Your task to perform on an android device: change the upload size in google photos Image 0: 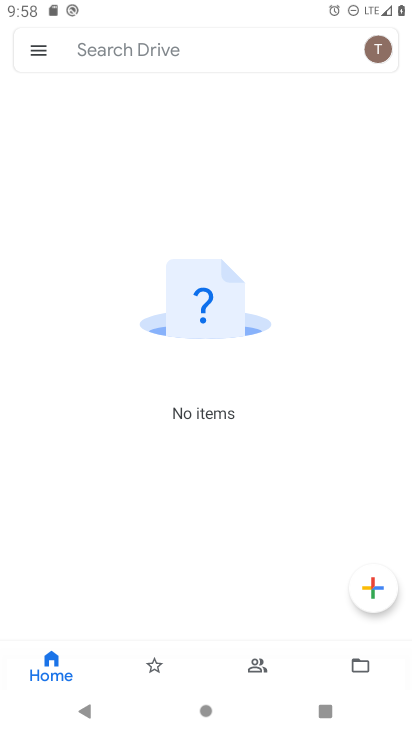
Step 0: press home button
Your task to perform on an android device: change the upload size in google photos Image 1: 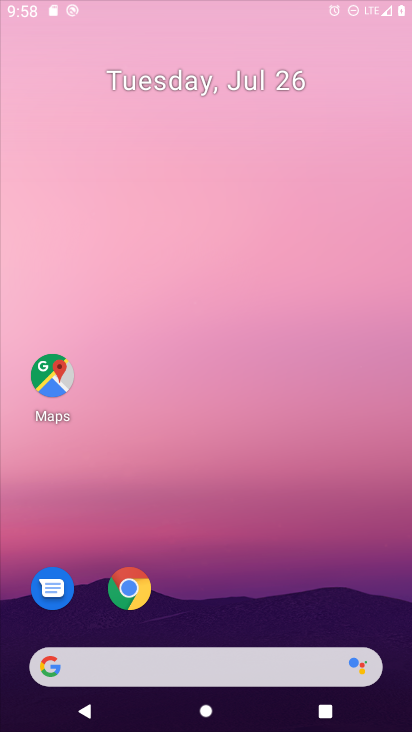
Step 1: drag from (221, 619) to (209, 177)
Your task to perform on an android device: change the upload size in google photos Image 2: 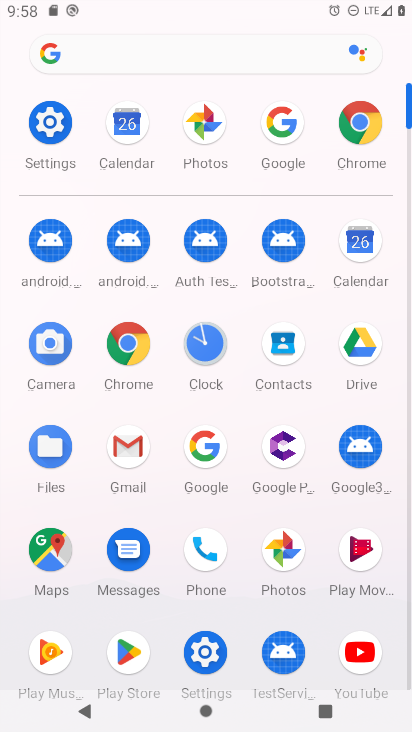
Step 2: click (270, 558)
Your task to perform on an android device: change the upload size in google photos Image 3: 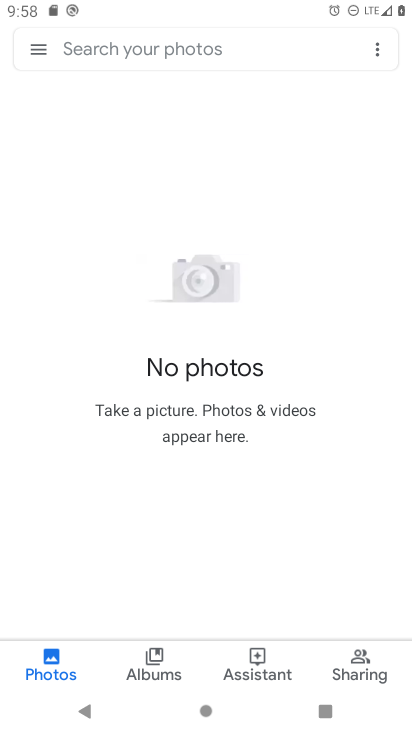
Step 3: click (37, 48)
Your task to perform on an android device: change the upload size in google photos Image 4: 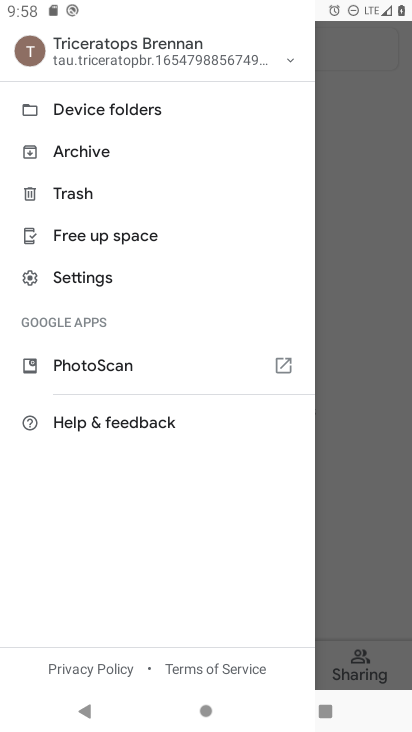
Step 4: click (109, 277)
Your task to perform on an android device: change the upload size in google photos Image 5: 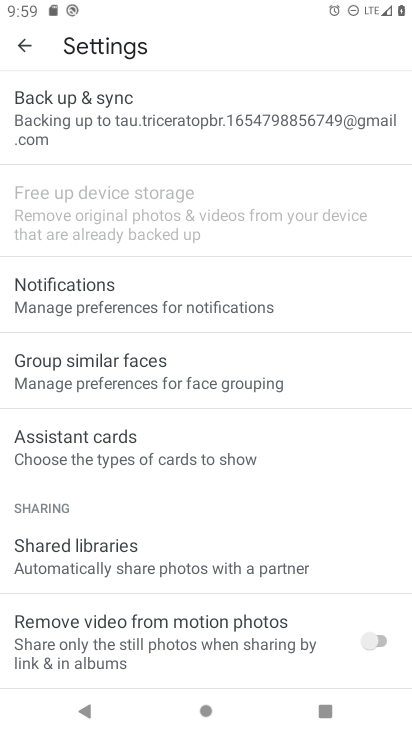
Step 5: click (102, 119)
Your task to perform on an android device: change the upload size in google photos Image 6: 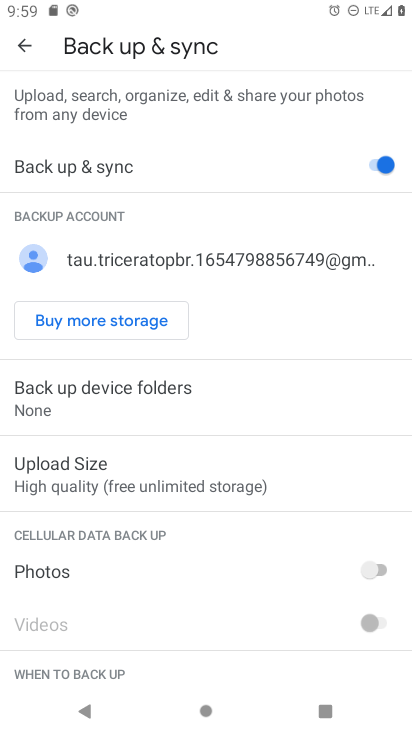
Step 6: click (110, 477)
Your task to perform on an android device: change the upload size in google photos Image 7: 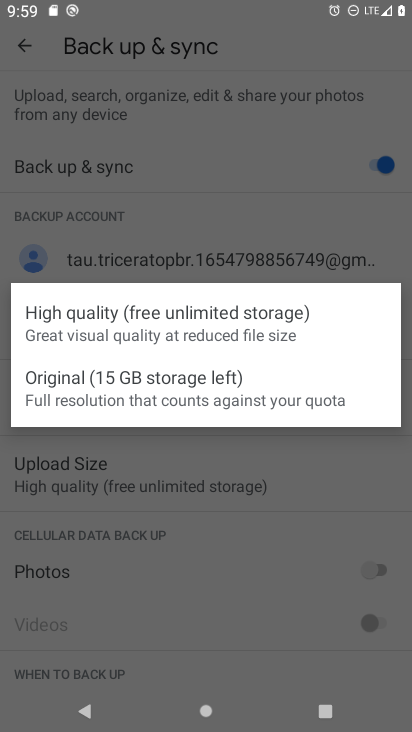
Step 7: click (83, 396)
Your task to perform on an android device: change the upload size in google photos Image 8: 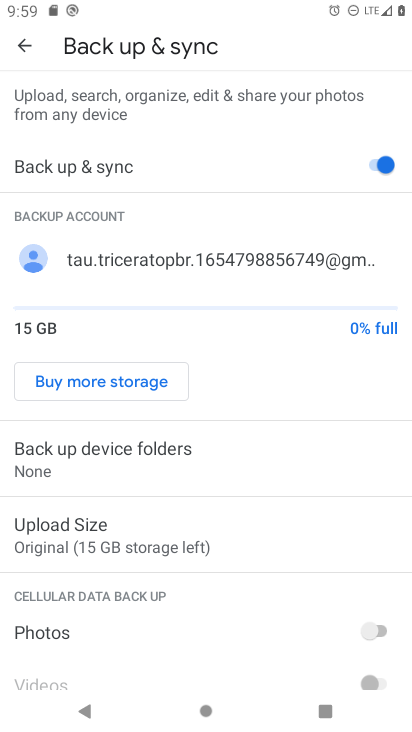
Step 8: task complete